Your task to perform on an android device: open the mobile data screen to see how much data has been used Image 0: 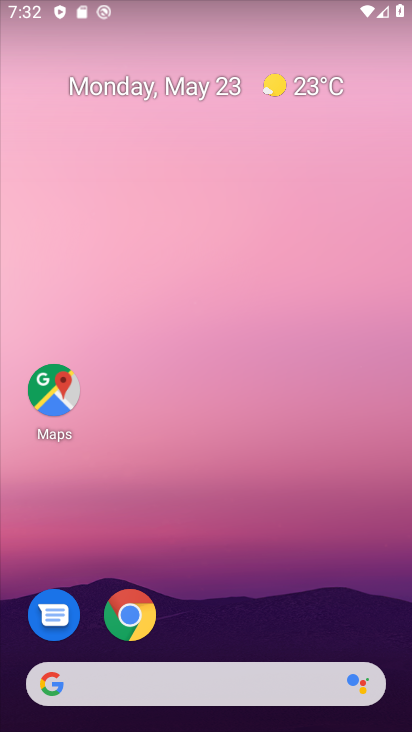
Step 0: drag from (255, 599) to (138, 75)
Your task to perform on an android device: open the mobile data screen to see how much data has been used Image 1: 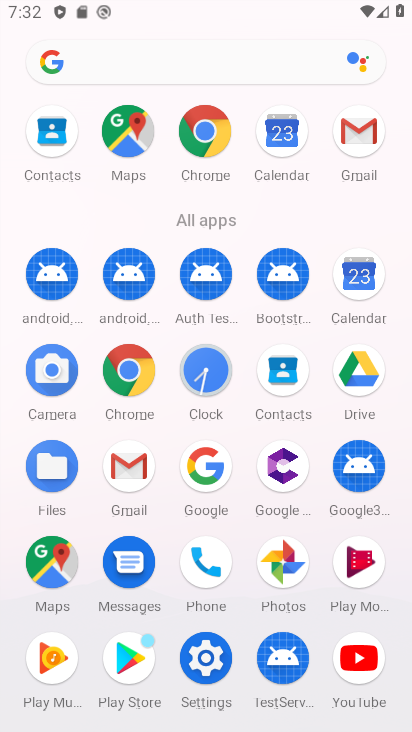
Step 1: drag from (244, 629) to (242, 450)
Your task to perform on an android device: open the mobile data screen to see how much data has been used Image 2: 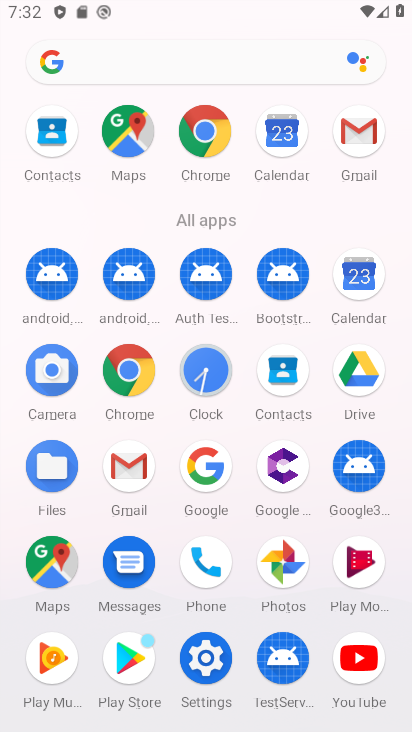
Step 2: click (206, 658)
Your task to perform on an android device: open the mobile data screen to see how much data has been used Image 3: 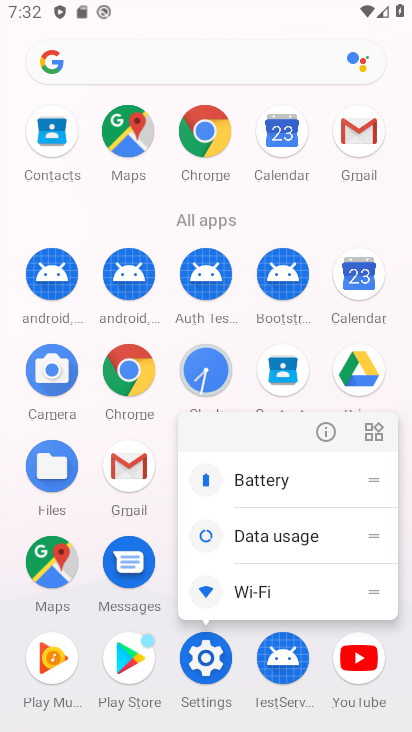
Step 3: click (257, 538)
Your task to perform on an android device: open the mobile data screen to see how much data has been used Image 4: 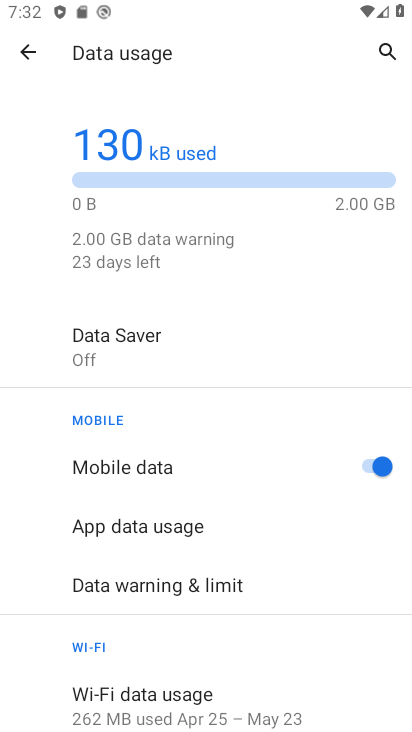
Step 4: task complete